Your task to perform on an android device: move a message to another label in the gmail app Image 0: 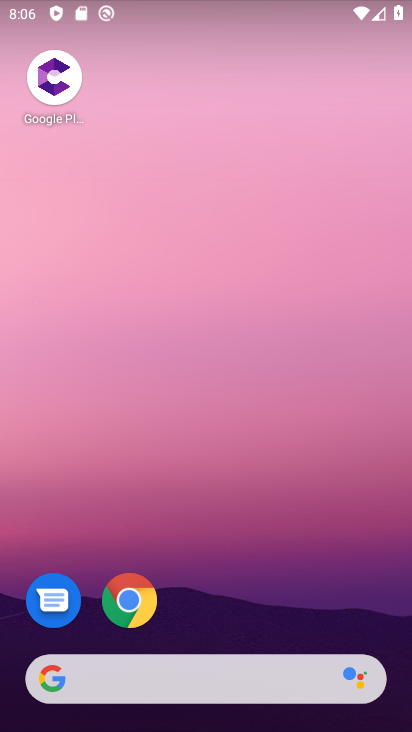
Step 0: drag from (182, 621) to (233, 87)
Your task to perform on an android device: move a message to another label in the gmail app Image 1: 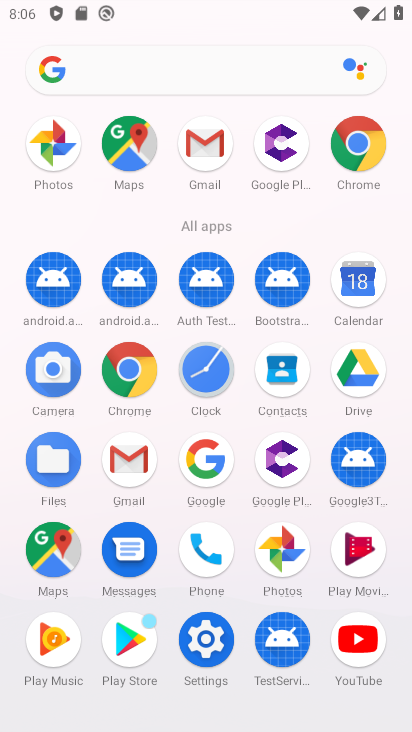
Step 1: click (125, 474)
Your task to perform on an android device: move a message to another label in the gmail app Image 2: 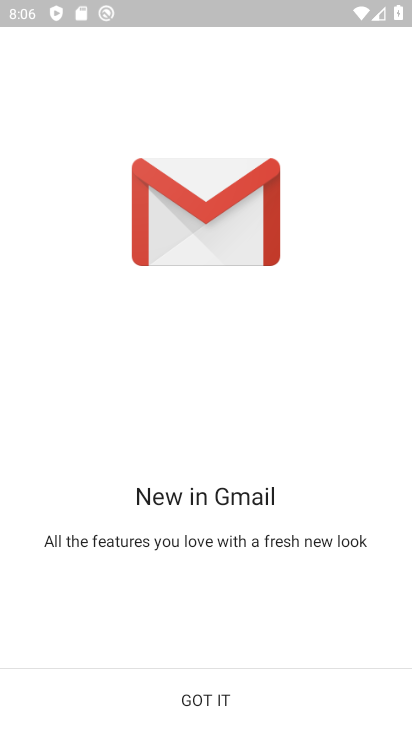
Step 2: click (219, 724)
Your task to perform on an android device: move a message to another label in the gmail app Image 3: 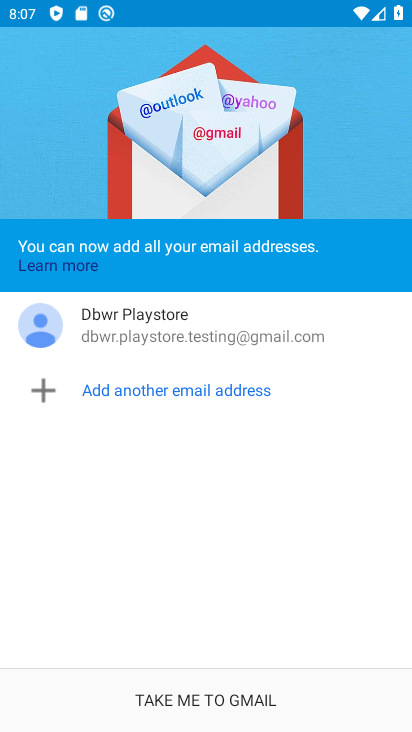
Step 3: click (233, 691)
Your task to perform on an android device: move a message to another label in the gmail app Image 4: 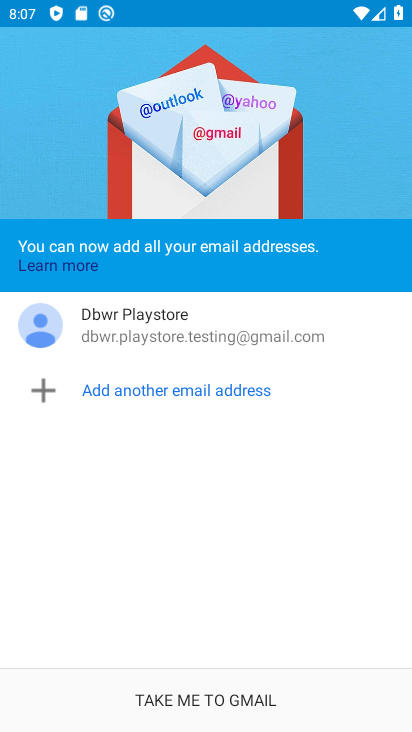
Step 4: click (235, 704)
Your task to perform on an android device: move a message to another label in the gmail app Image 5: 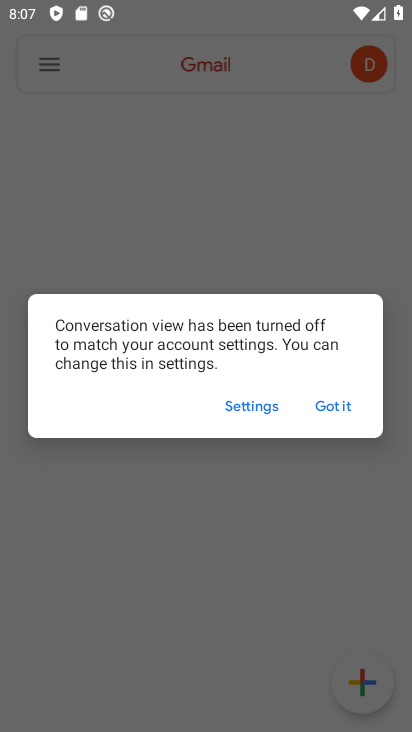
Step 5: click (324, 393)
Your task to perform on an android device: move a message to another label in the gmail app Image 6: 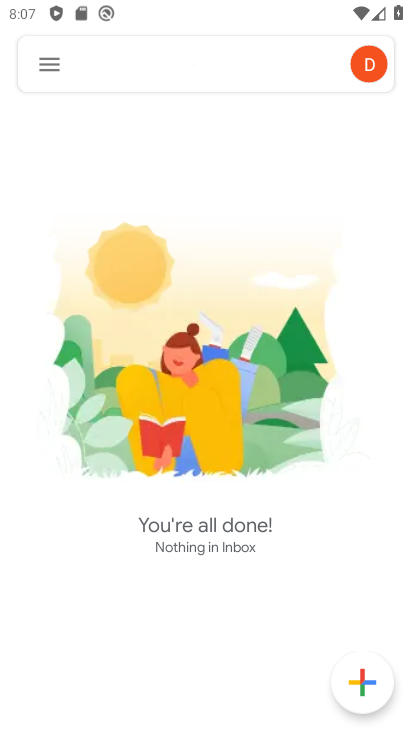
Step 6: click (54, 66)
Your task to perform on an android device: move a message to another label in the gmail app Image 7: 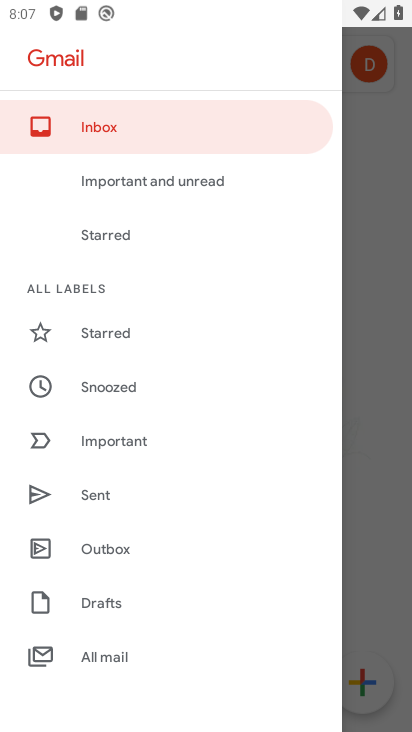
Step 7: click (118, 662)
Your task to perform on an android device: move a message to another label in the gmail app Image 8: 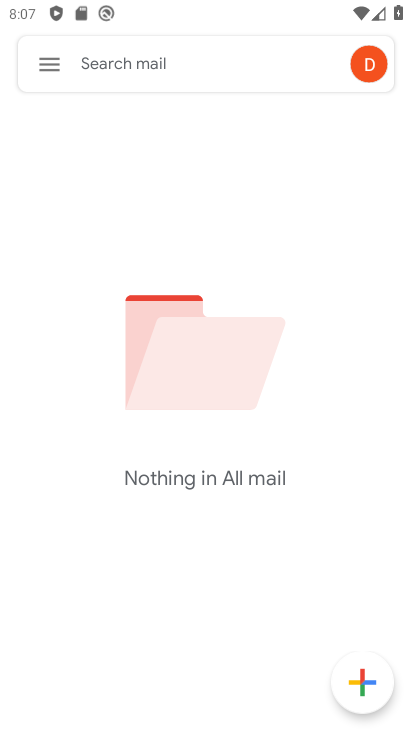
Step 8: task complete